Your task to perform on an android device: What's on my calendar today? Image 0: 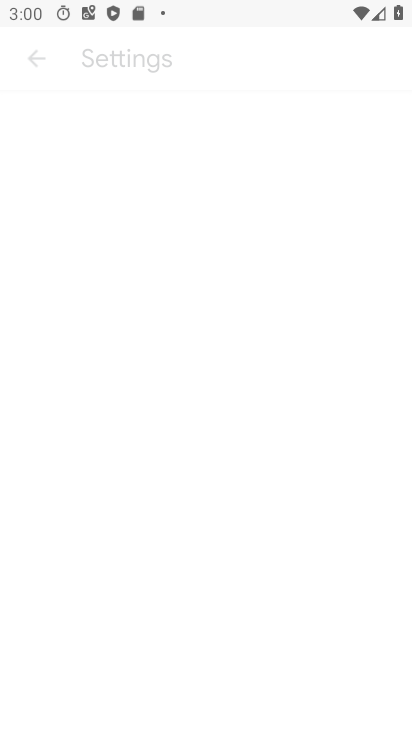
Step 0: click (122, 596)
Your task to perform on an android device: What's on my calendar today? Image 1: 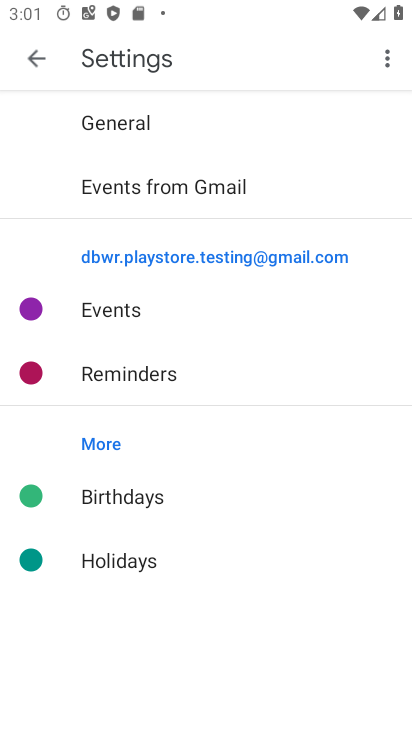
Step 1: press home button
Your task to perform on an android device: What's on my calendar today? Image 2: 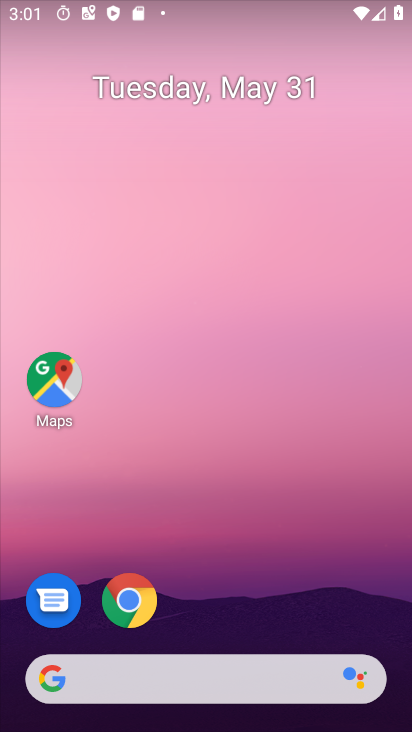
Step 2: drag from (224, 496) to (224, 9)
Your task to perform on an android device: What's on my calendar today? Image 3: 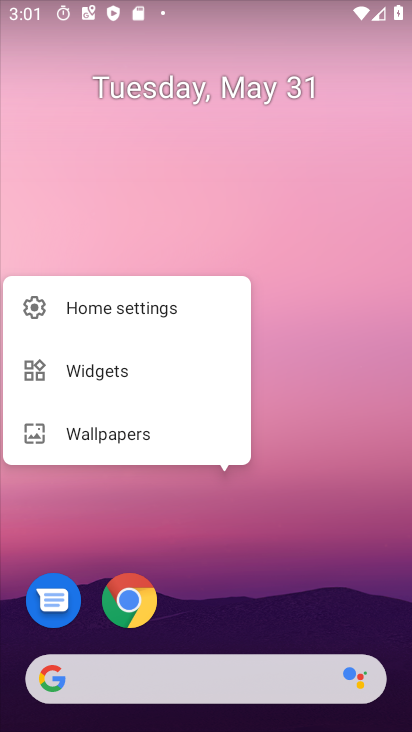
Step 3: click (289, 530)
Your task to perform on an android device: What's on my calendar today? Image 4: 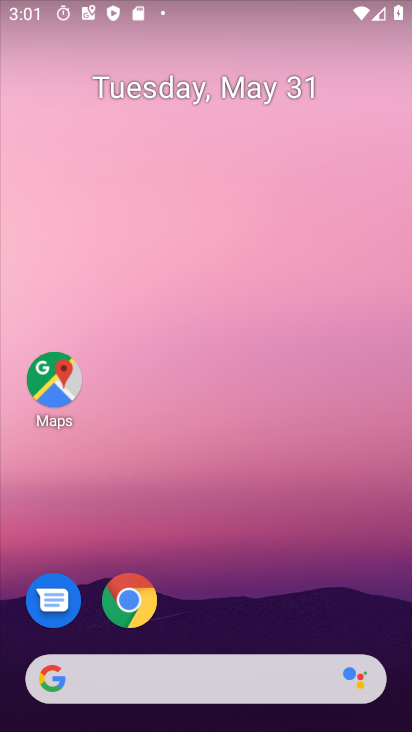
Step 4: drag from (234, 640) to (284, 39)
Your task to perform on an android device: What's on my calendar today? Image 5: 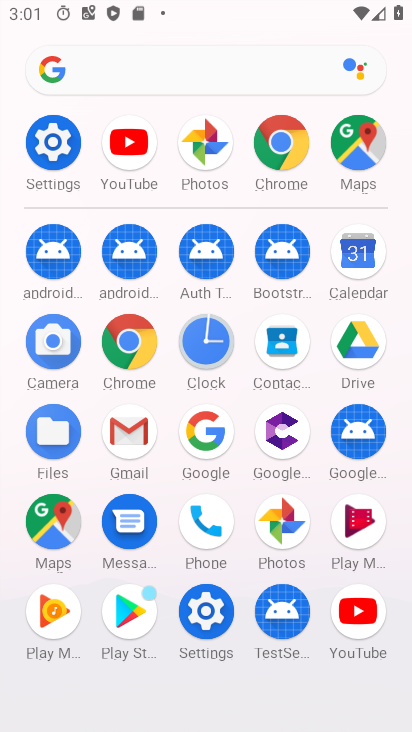
Step 5: click (358, 247)
Your task to perform on an android device: What's on my calendar today? Image 6: 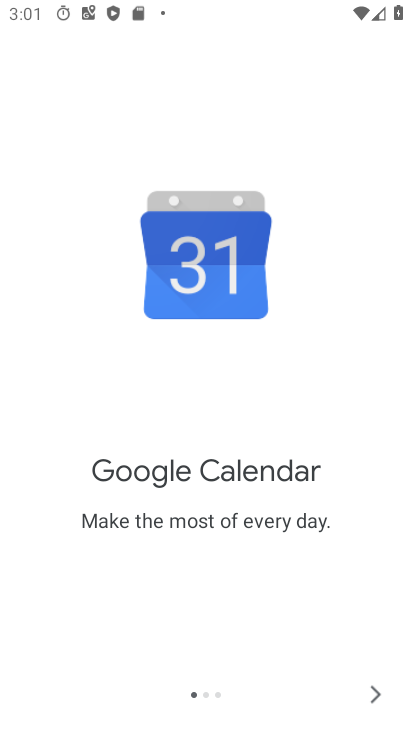
Step 6: click (370, 682)
Your task to perform on an android device: What's on my calendar today? Image 7: 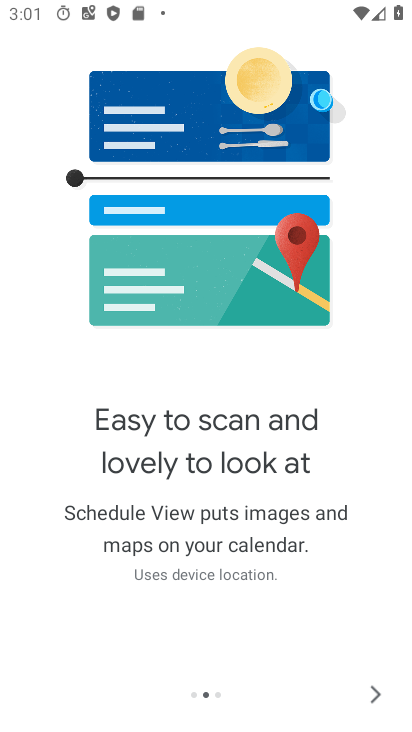
Step 7: click (370, 682)
Your task to perform on an android device: What's on my calendar today? Image 8: 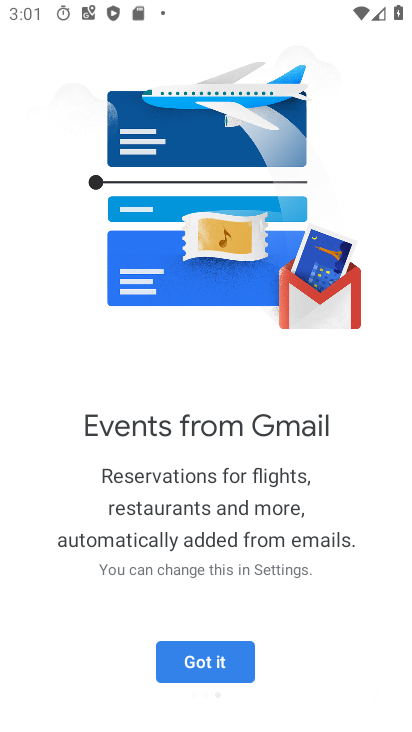
Step 8: click (370, 682)
Your task to perform on an android device: What's on my calendar today? Image 9: 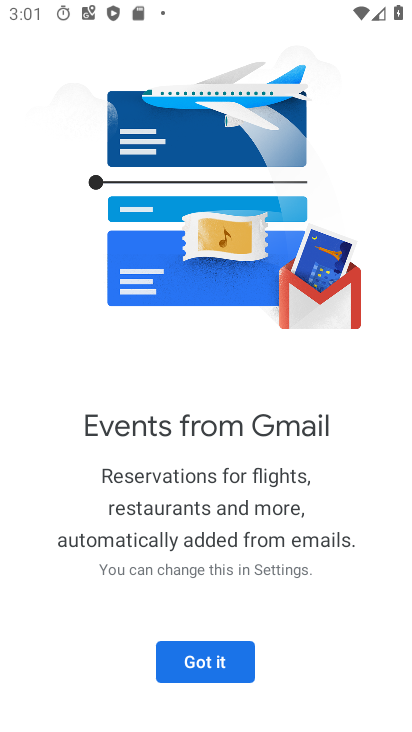
Step 9: click (221, 662)
Your task to perform on an android device: What's on my calendar today? Image 10: 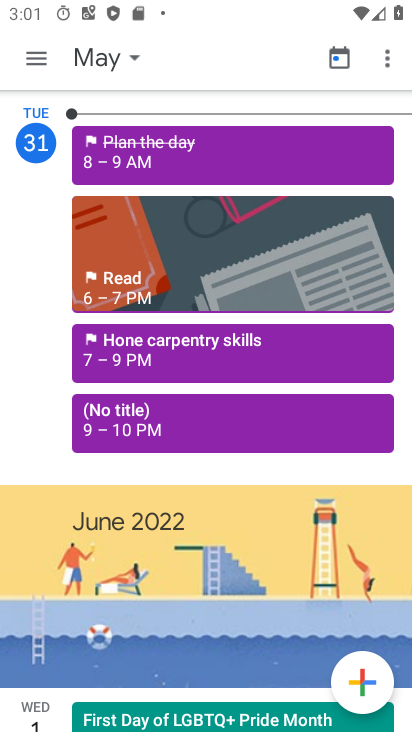
Step 10: click (35, 177)
Your task to perform on an android device: What's on my calendar today? Image 11: 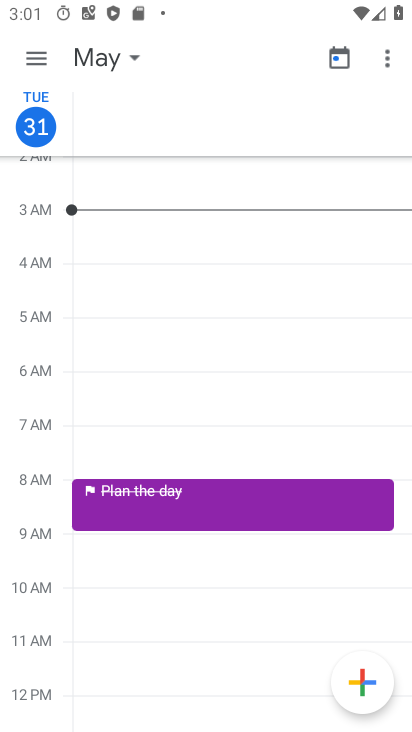
Step 11: task complete